Your task to perform on an android device: Open Wikipedia Image 0: 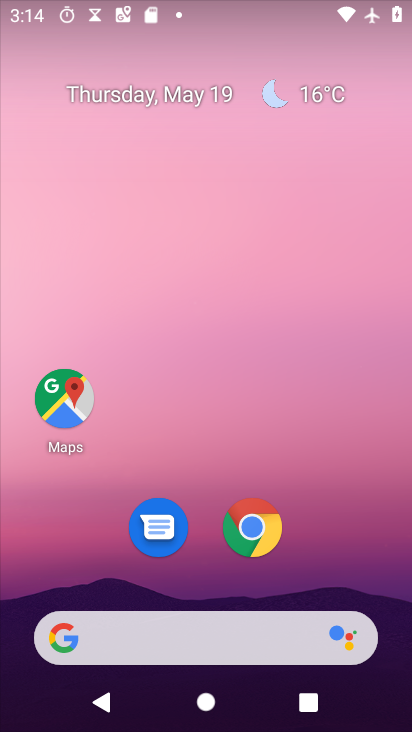
Step 0: click (253, 531)
Your task to perform on an android device: Open Wikipedia Image 1: 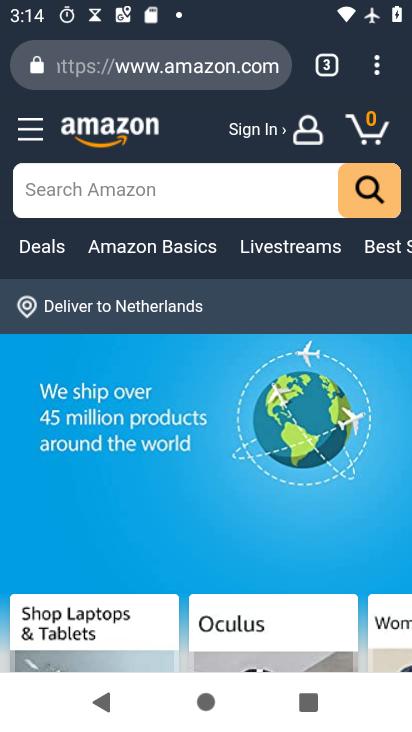
Step 1: click (327, 62)
Your task to perform on an android device: Open Wikipedia Image 2: 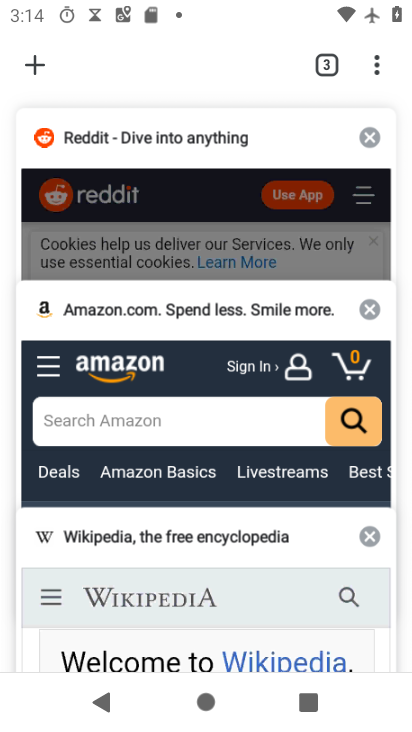
Step 2: click (195, 542)
Your task to perform on an android device: Open Wikipedia Image 3: 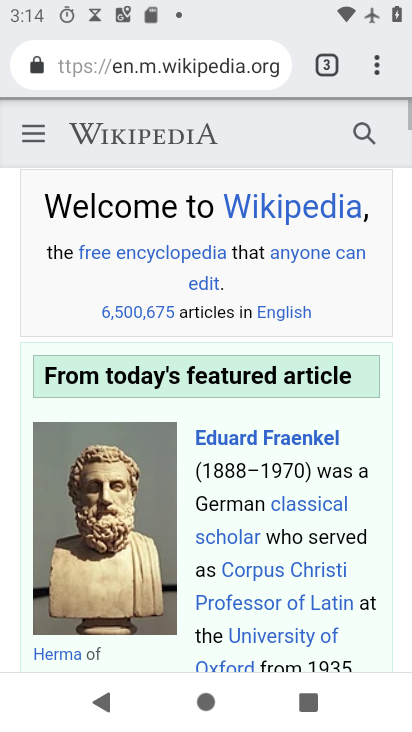
Step 3: task complete